Your task to perform on an android device: Open calendar and show me the second week of next month Image 0: 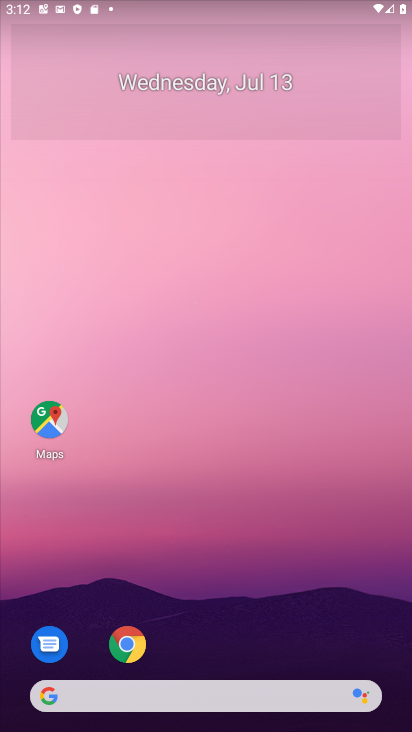
Step 0: drag from (31, 630) to (195, 136)
Your task to perform on an android device: Open calendar and show me the second week of next month Image 1: 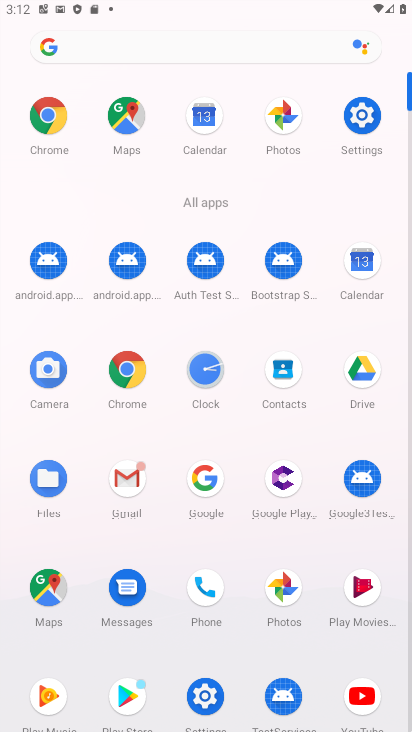
Step 1: click (347, 269)
Your task to perform on an android device: Open calendar and show me the second week of next month Image 2: 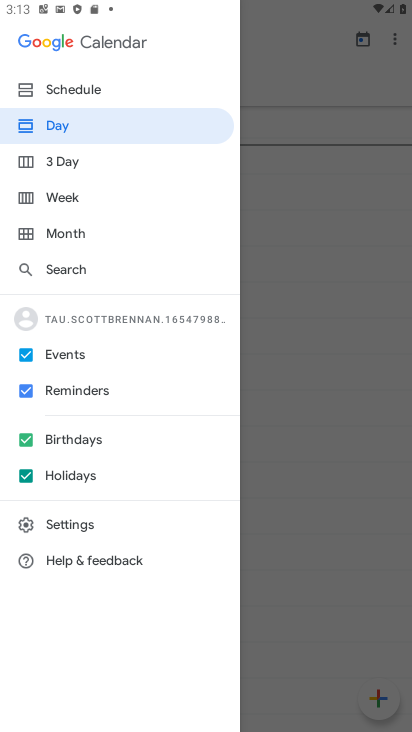
Step 2: click (293, 186)
Your task to perform on an android device: Open calendar and show me the second week of next month Image 3: 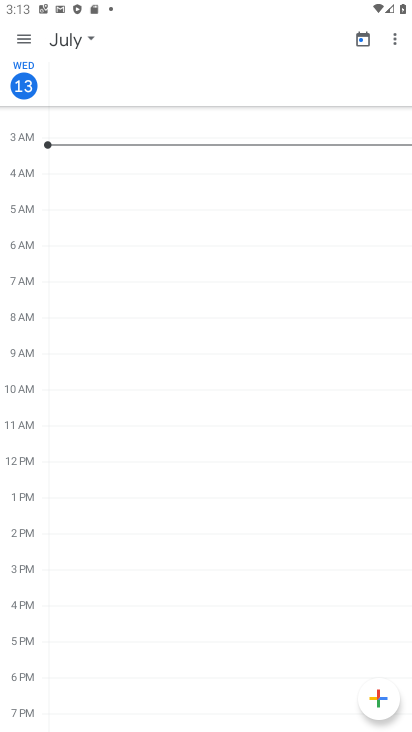
Step 3: click (65, 39)
Your task to perform on an android device: Open calendar and show me the second week of next month Image 4: 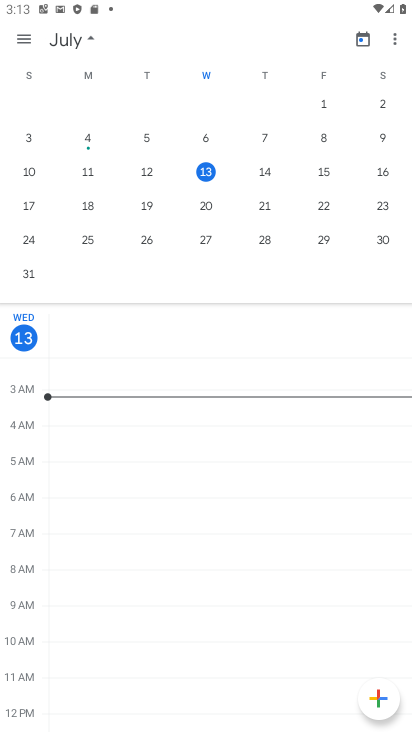
Step 4: drag from (376, 177) to (3, 215)
Your task to perform on an android device: Open calendar and show me the second week of next month Image 5: 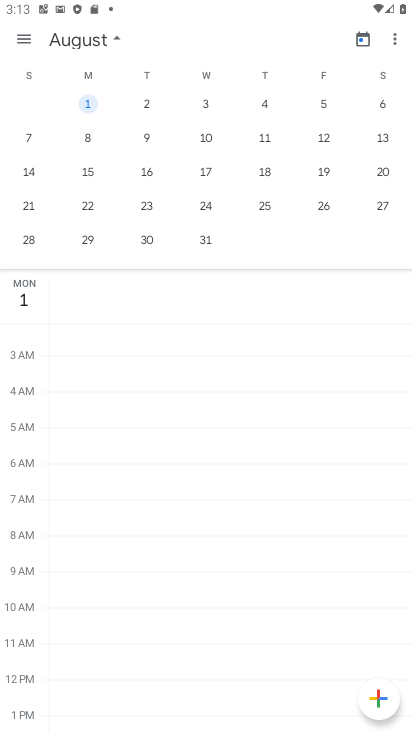
Step 5: click (85, 132)
Your task to perform on an android device: Open calendar and show me the second week of next month Image 6: 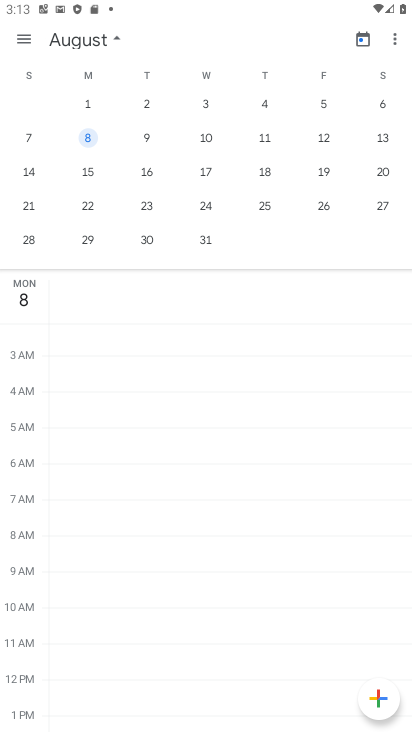
Step 6: task complete